Your task to perform on an android device: Open network settings Image 0: 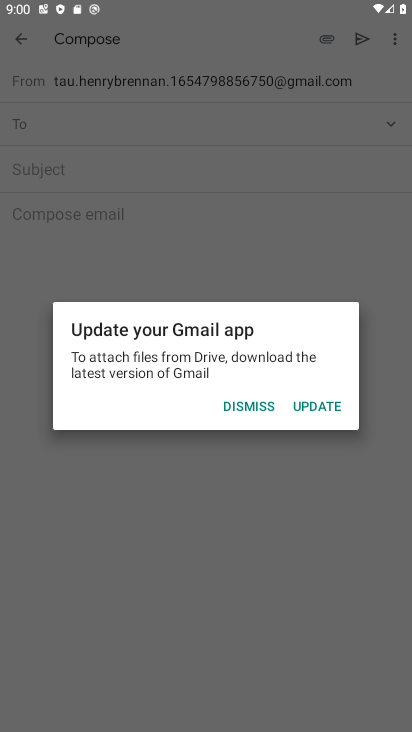
Step 0: press back button
Your task to perform on an android device: Open network settings Image 1: 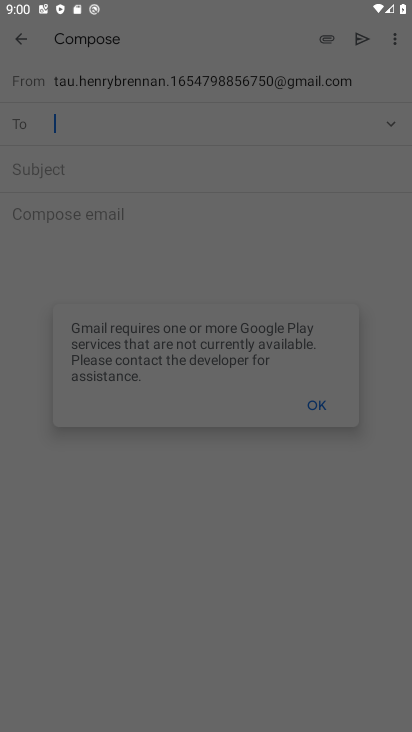
Step 1: press back button
Your task to perform on an android device: Open network settings Image 2: 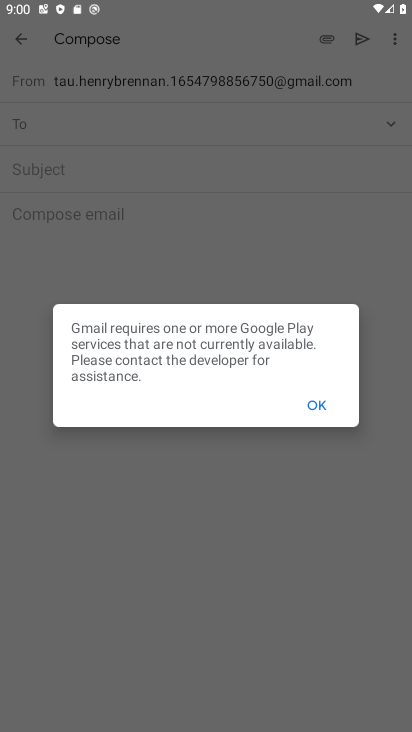
Step 2: press home button
Your task to perform on an android device: Open network settings Image 3: 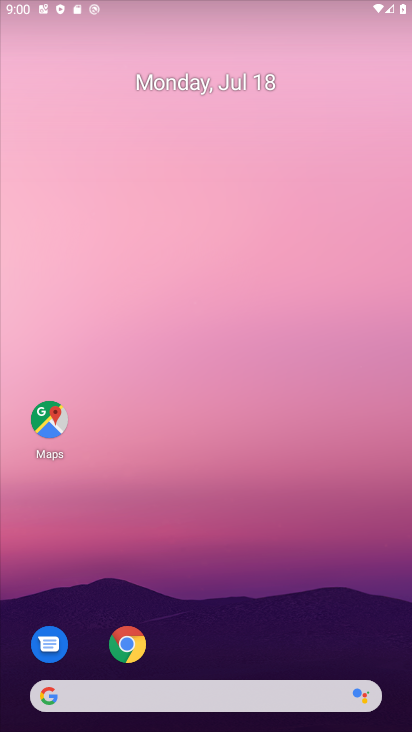
Step 3: drag from (240, 502) to (255, 31)
Your task to perform on an android device: Open network settings Image 4: 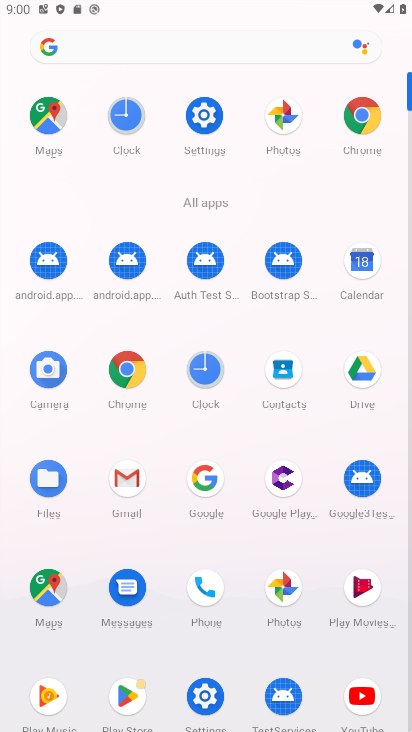
Step 4: click (205, 129)
Your task to perform on an android device: Open network settings Image 5: 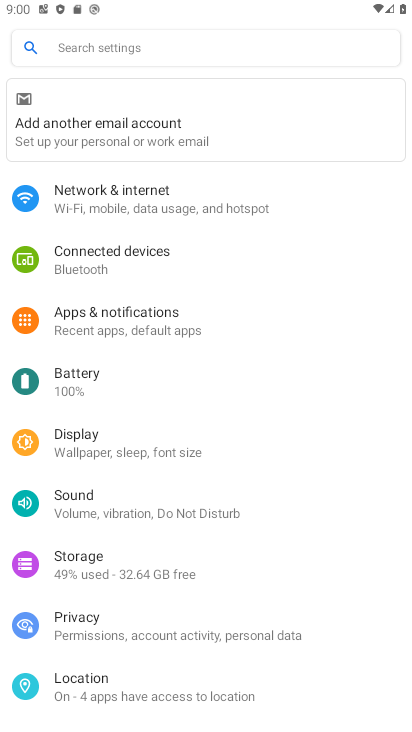
Step 5: click (175, 202)
Your task to perform on an android device: Open network settings Image 6: 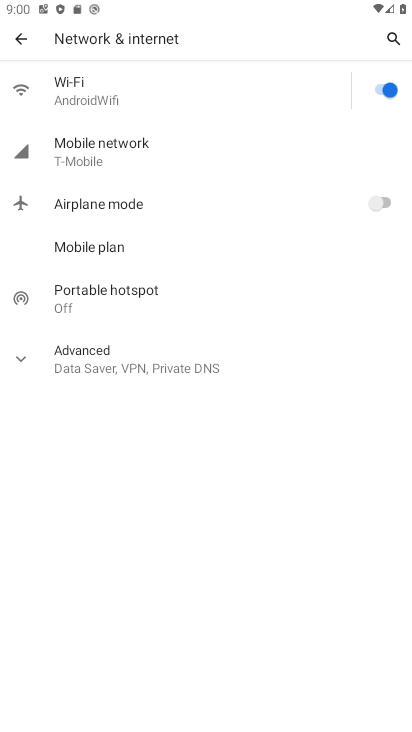
Step 6: task complete